Your task to perform on an android device: Open internet settings Image 0: 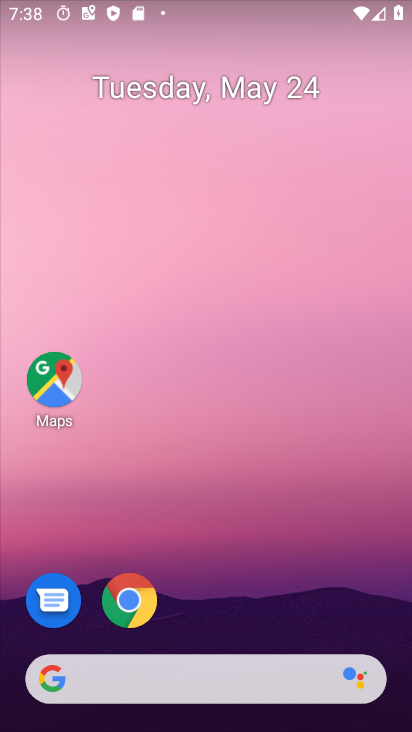
Step 0: drag from (206, 538) to (272, 105)
Your task to perform on an android device: Open internet settings Image 1: 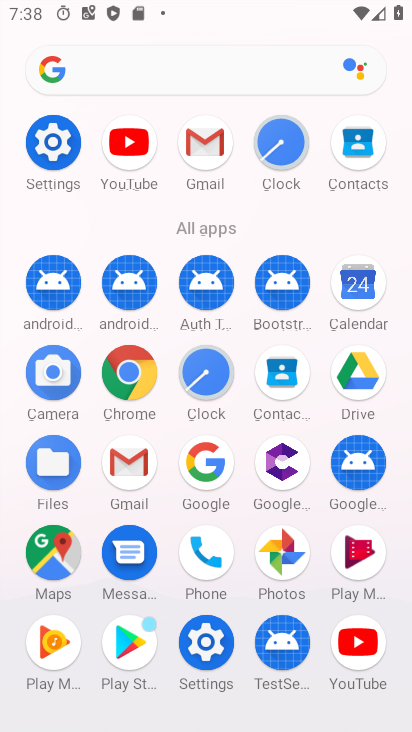
Step 1: click (65, 149)
Your task to perform on an android device: Open internet settings Image 2: 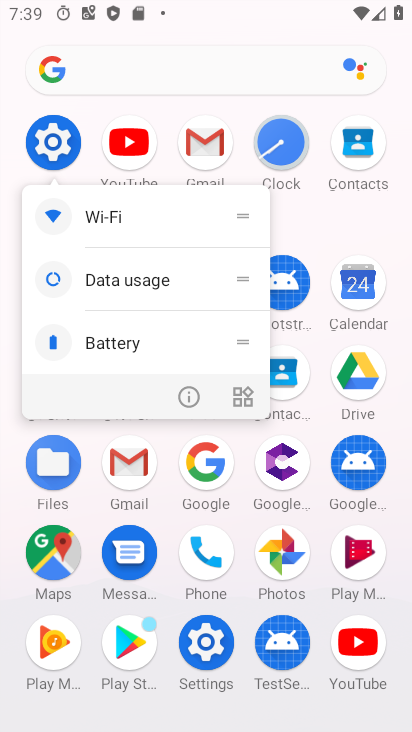
Step 2: click (55, 147)
Your task to perform on an android device: Open internet settings Image 3: 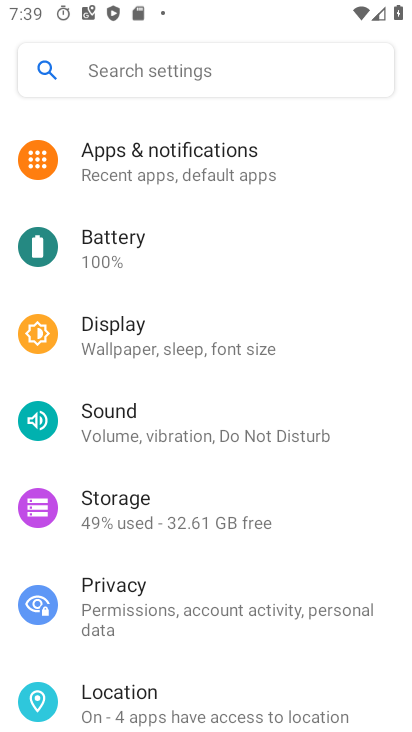
Step 3: drag from (171, 156) to (206, 665)
Your task to perform on an android device: Open internet settings Image 4: 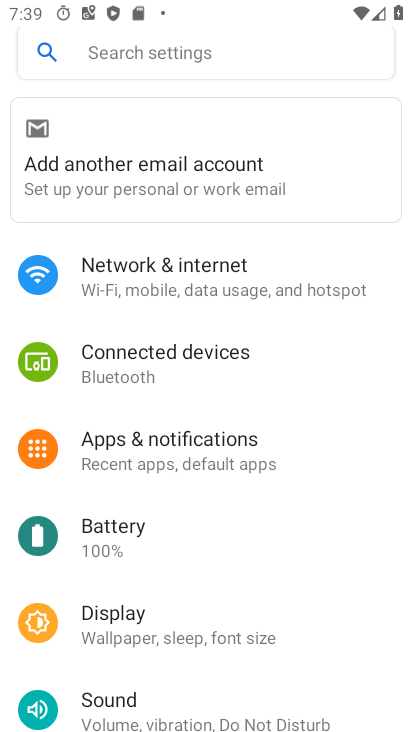
Step 4: click (212, 279)
Your task to perform on an android device: Open internet settings Image 5: 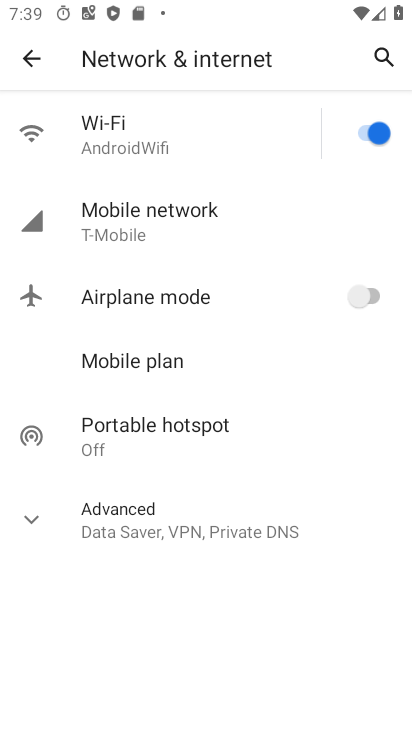
Step 5: task complete